Your task to perform on an android device: check data usage Image 0: 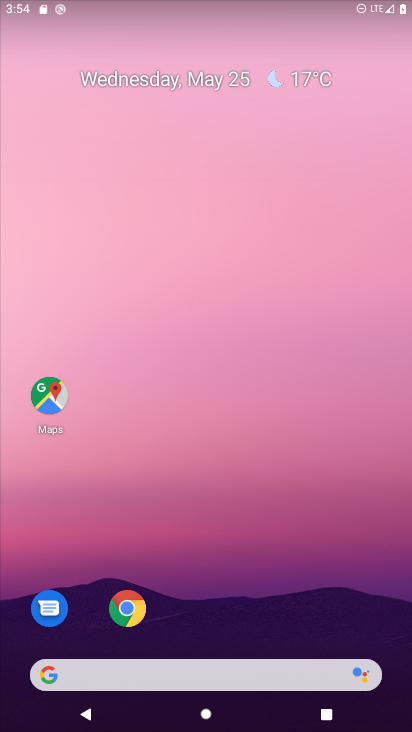
Step 0: drag from (368, 605) to (293, 35)
Your task to perform on an android device: check data usage Image 1: 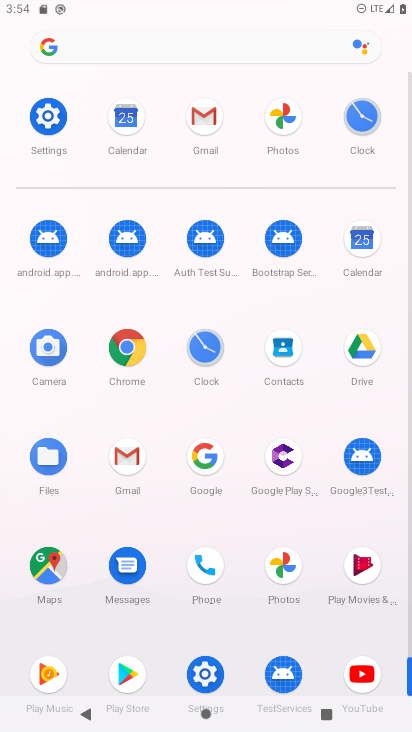
Step 1: click (203, 677)
Your task to perform on an android device: check data usage Image 2: 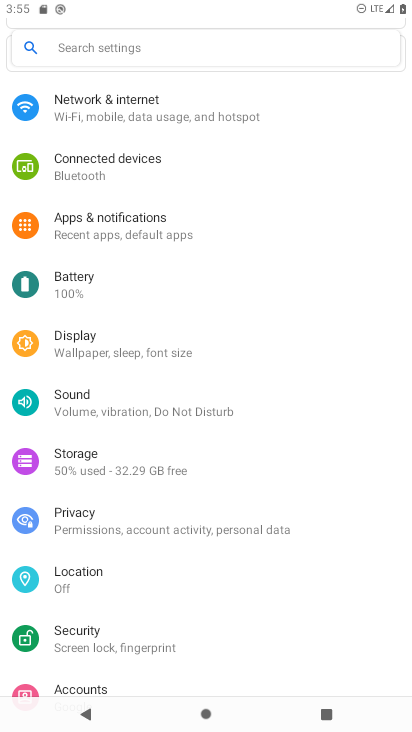
Step 2: click (114, 108)
Your task to perform on an android device: check data usage Image 3: 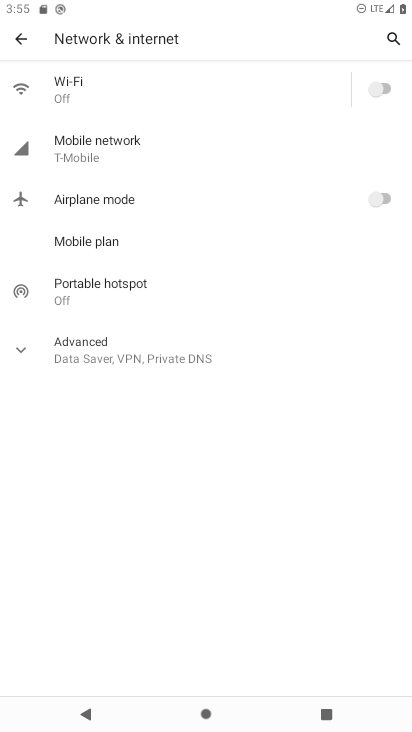
Step 3: click (96, 140)
Your task to perform on an android device: check data usage Image 4: 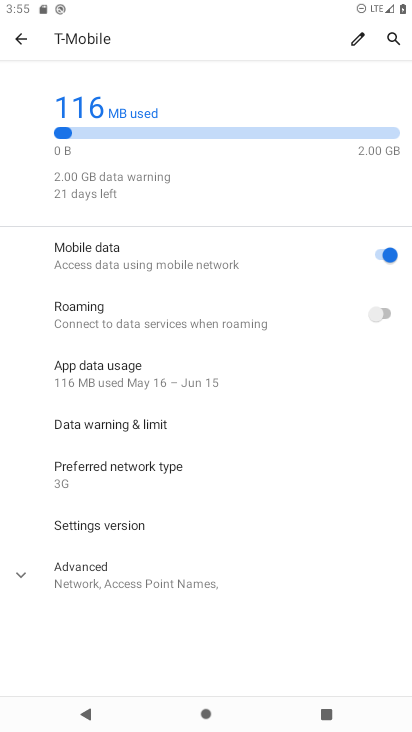
Step 4: task complete